Your task to perform on an android device: turn off improve location accuracy Image 0: 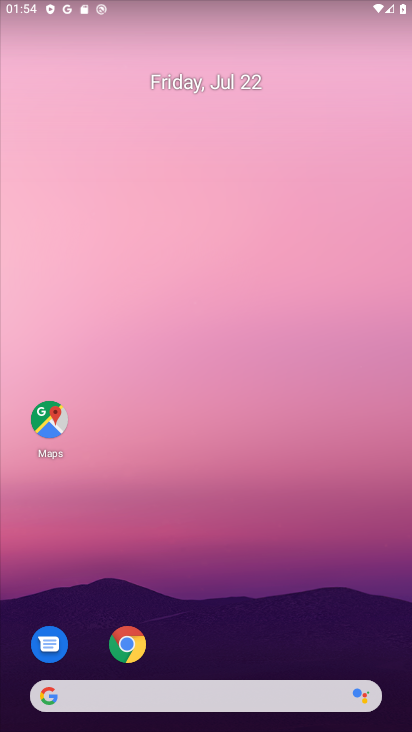
Step 0: click (213, 704)
Your task to perform on an android device: turn off improve location accuracy Image 1: 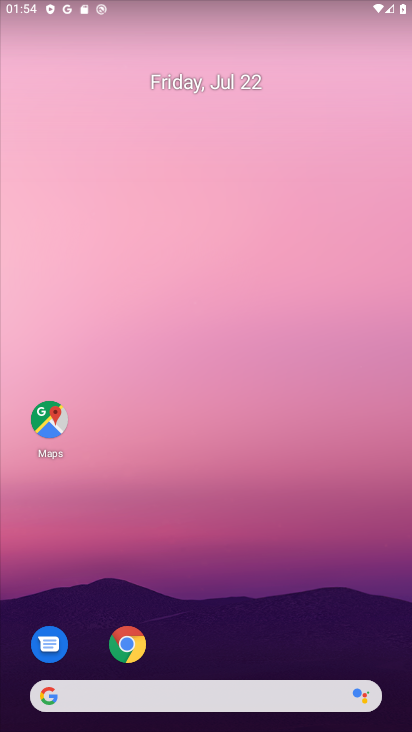
Step 1: drag from (214, 704) to (181, 48)
Your task to perform on an android device: turn off improve location accuracy Image 2: 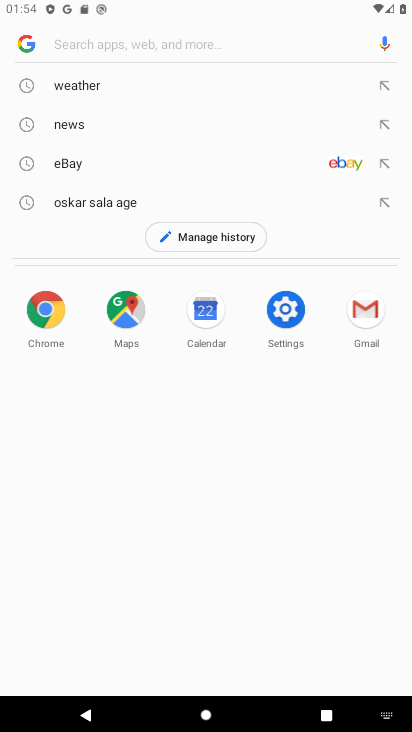
Step 2: press home button
Your task to perform on an android device: turn off improve location accuracy Image 3: 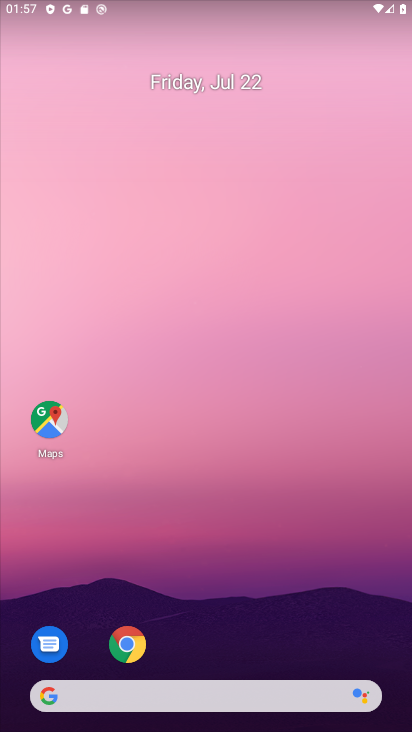
Step 3: click (267, 700)
Your task to perform on an android device: turn off improve location accuracy Image 4: 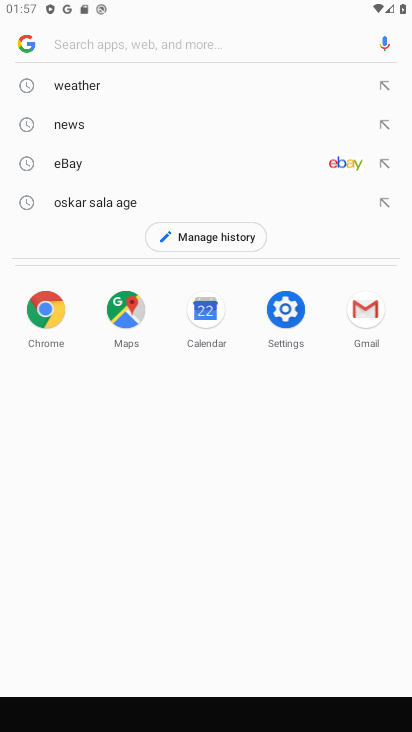
Step 4: click (246, 675)
Your task to perform on an android device: turn off improve location accuracy Image 5: 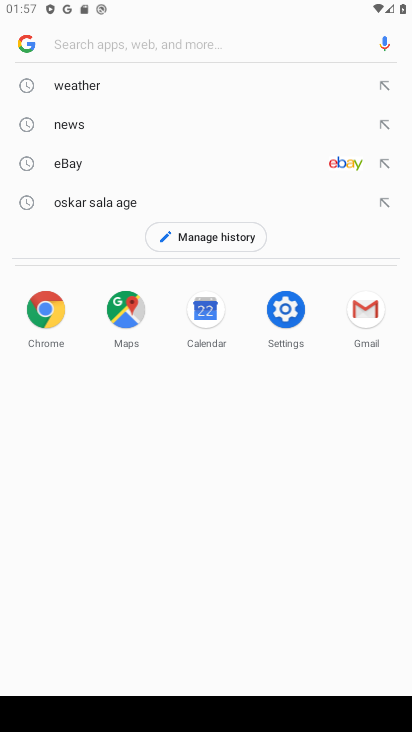
Step 5: click (246, 675)
Your task to perform on an android device: turn off improve location accuracy Image 6: 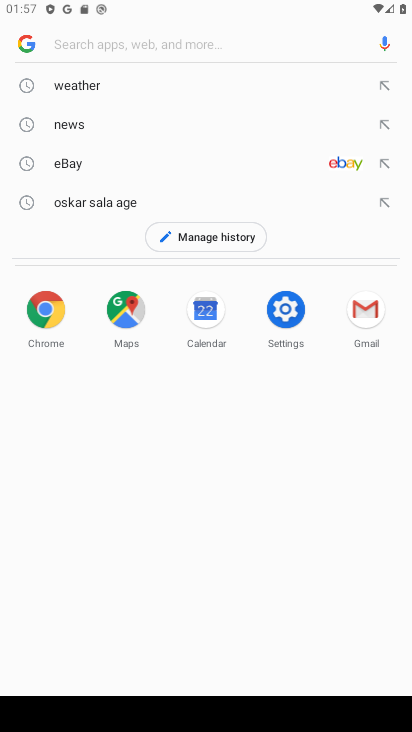
Step 6: click (274, 335)
Your task to perform on an android device: turn off improve location accuracy Image 7: 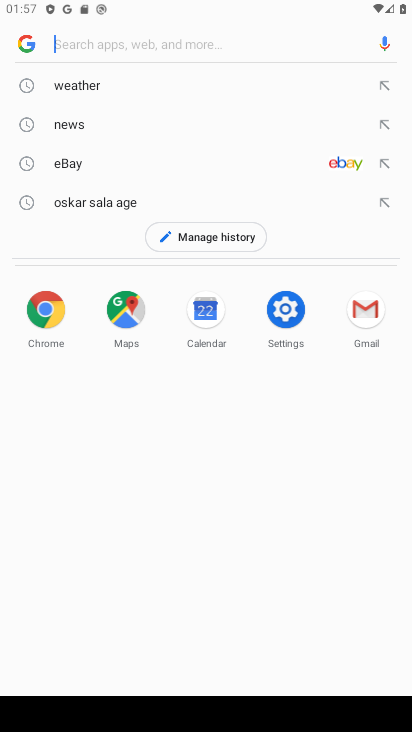
Step 7: click (274, 335)
Your task to perform on an android device: turn off improve location accuracy Image 8: 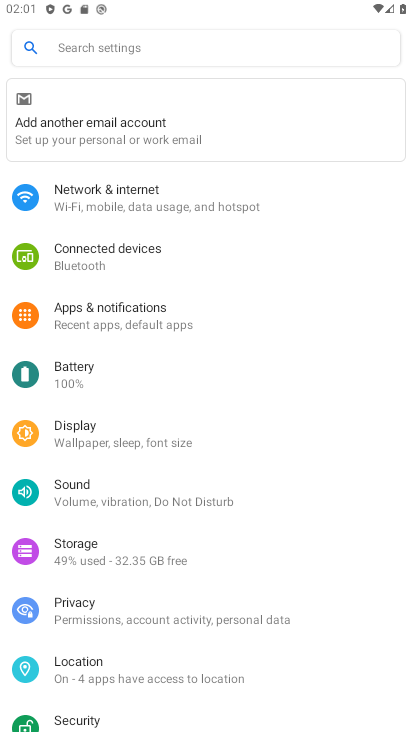
Step 8: click (121, 668)
Your task to perform on an android device: turn off improve location accuracy Image 9: 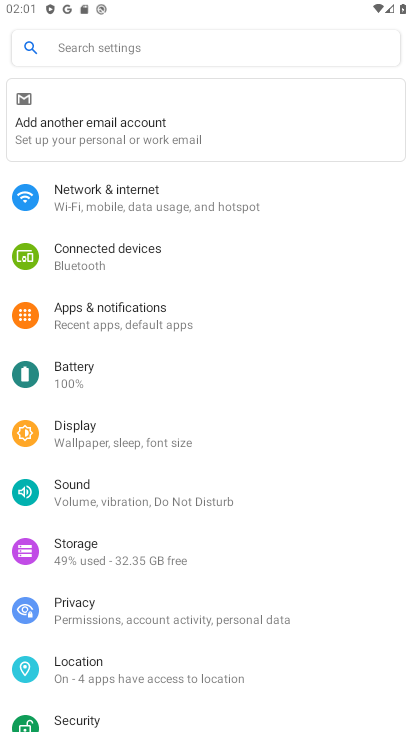
Step 9: click (121, 668)
Your task to perform on an android device: turn off improve location accuracy Image 10: 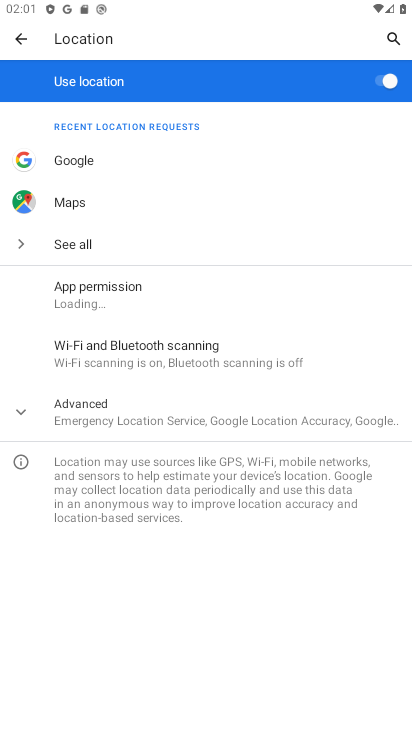
Step 10: click (119, 412)
Your task to perform on an android device: turn off improve location accuracy Image 11: 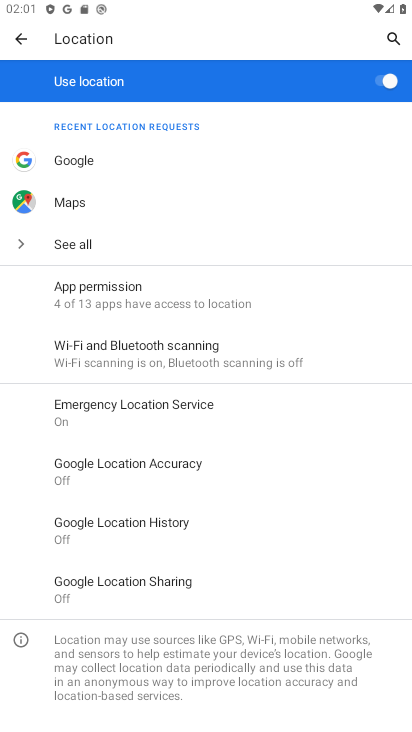
Step 11: click (148, 471)
Your task to perform on an android device: turn off improve location accuracy Image 12: 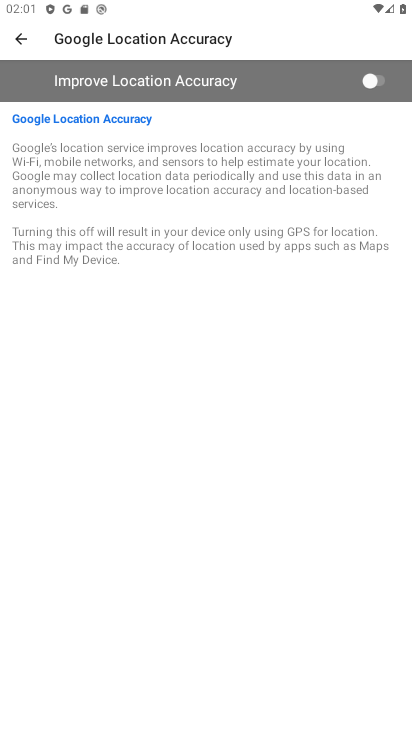
Step 12: task complete